Your task to perform on an android device: empty trash in google photos Image 0: 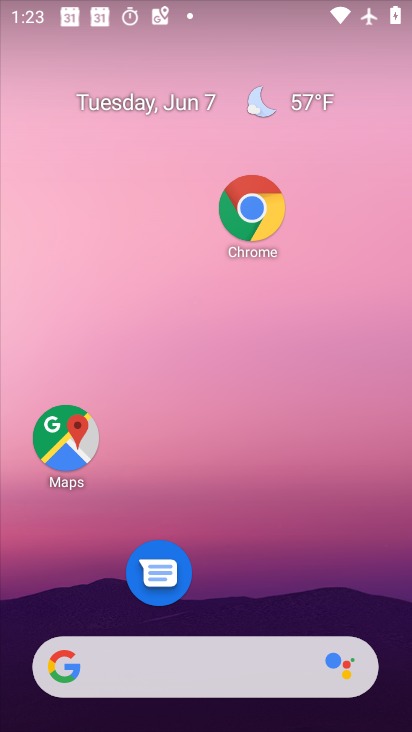
Step 0: drag from (220, 586) to (200, 61)
Your task to perform on an android device: empty trash in google photos Image 1: 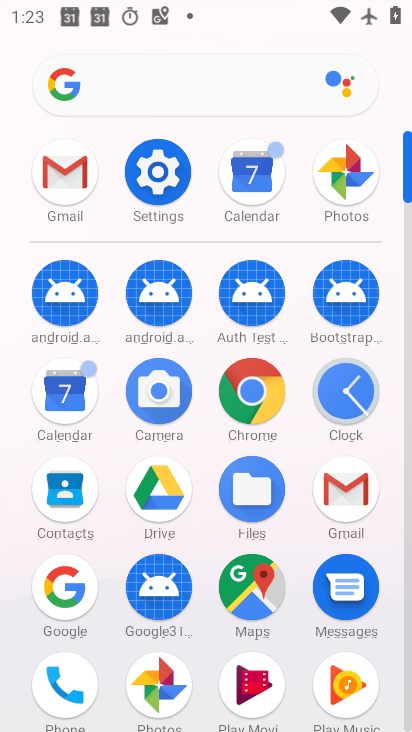
Step 1: click (356, 195)
Your task to perform on an android device: empty trash in google photos Image 2: 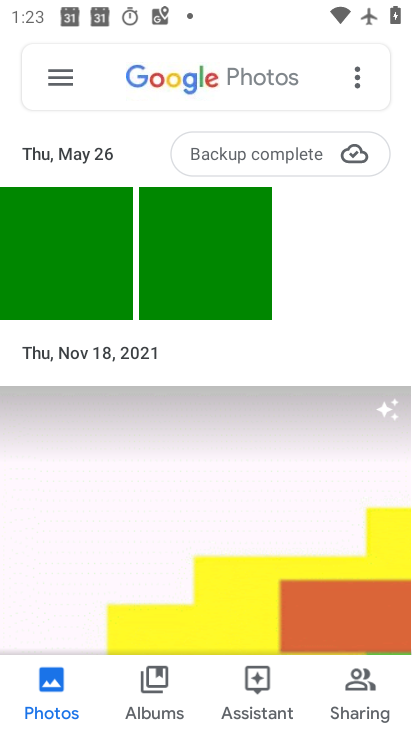
Step 2: click (45, 65)
Your task to perform on an android device: empty trash in google photos Image 3: 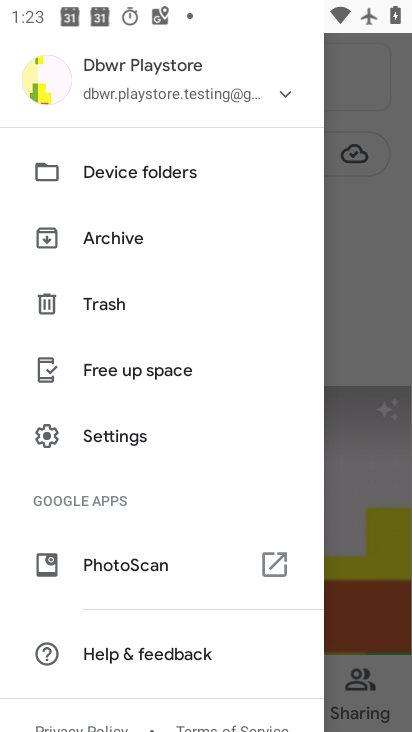
Step 3: click (131, 309)
Your task to perform on an android device: empty trash in google photos Image 4: 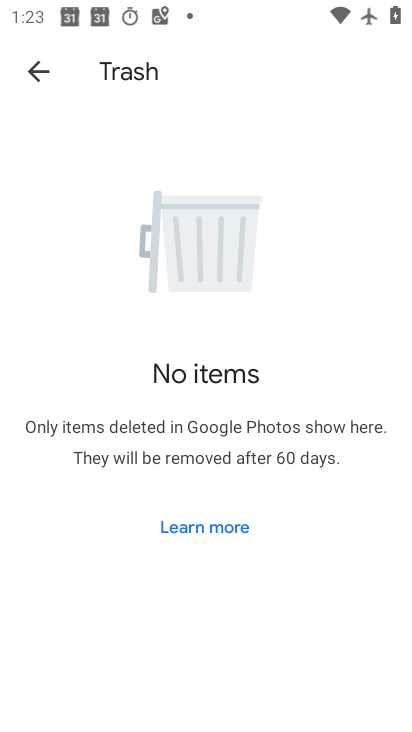
Step 4: task complete